Your task to perform on an android device: Open Chrome and go to settings Image 0: 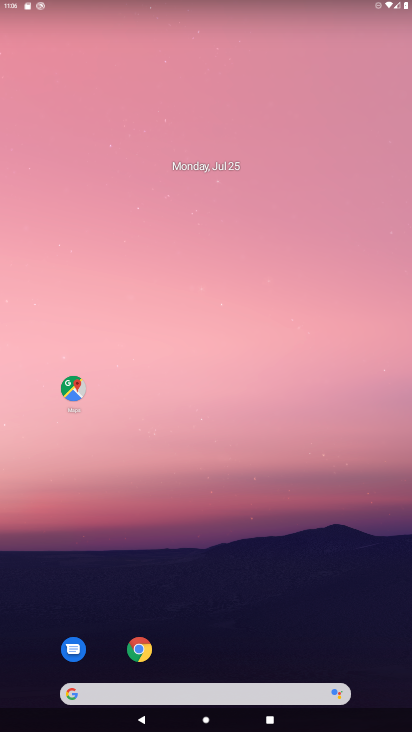
Step 0: click (139, 649)
Your task to perform on an android device: Open Chrome and go to settings Image 1: 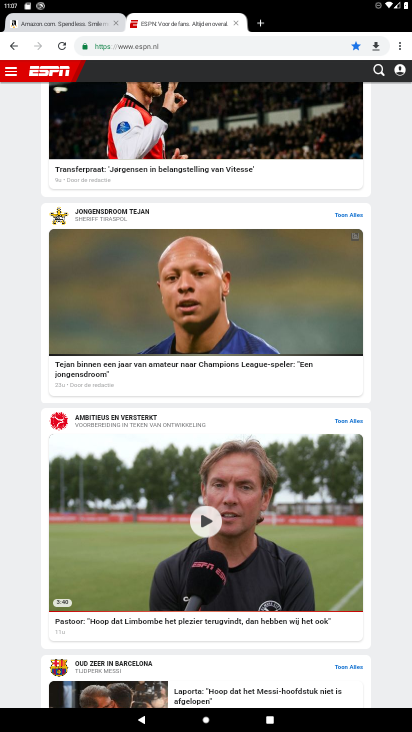
Step 1: click (400, 48)
Your task to perform on an android device: Open Chrome and go to settings Image 2: 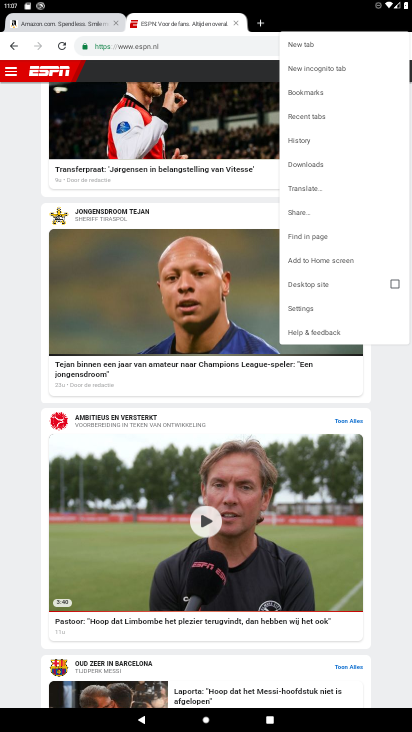
Step 2: click (304, 309)
Your task to perform on an android device: Open Chrome and go to settings Image 3: 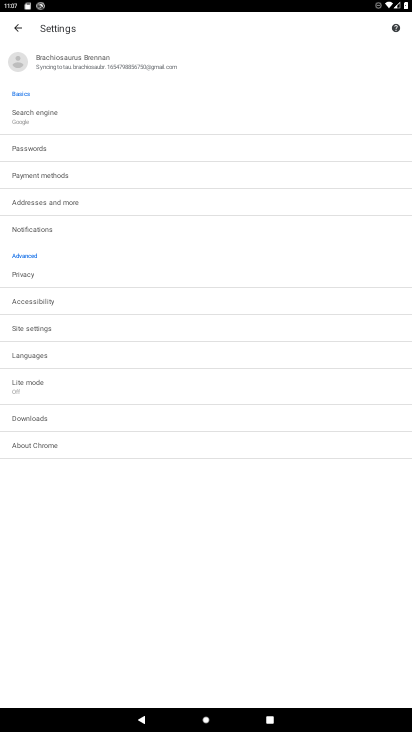
Step 3: task complete